Your task to perform on an android device: Search for the best selling books on Target. Image 0: 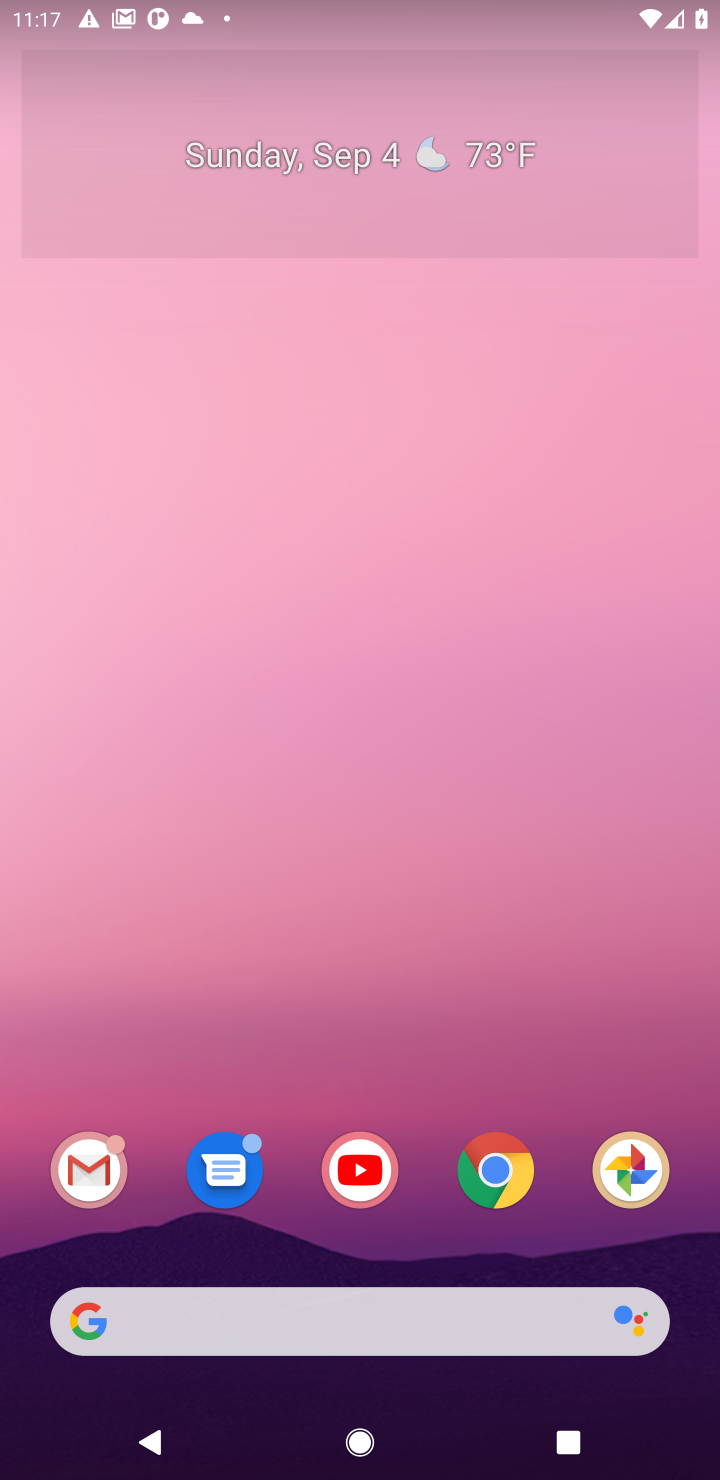
Step 0: click (325, 1346)
Your task to perform on an android device: Search for the best selling books on Target. Image 1: 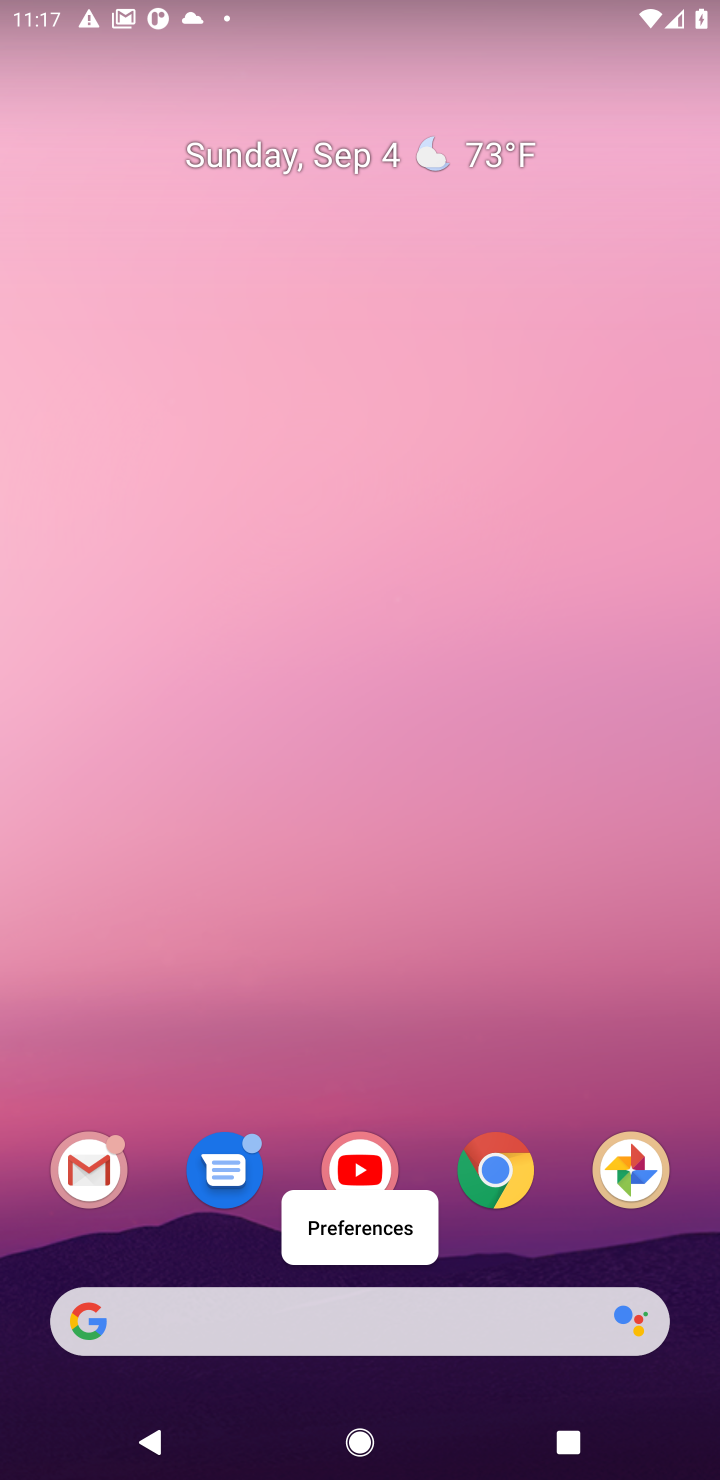
Step 1: click (321, 1340)
Your task to perform on an android device: Search for the best selling books on Target. Image 2: 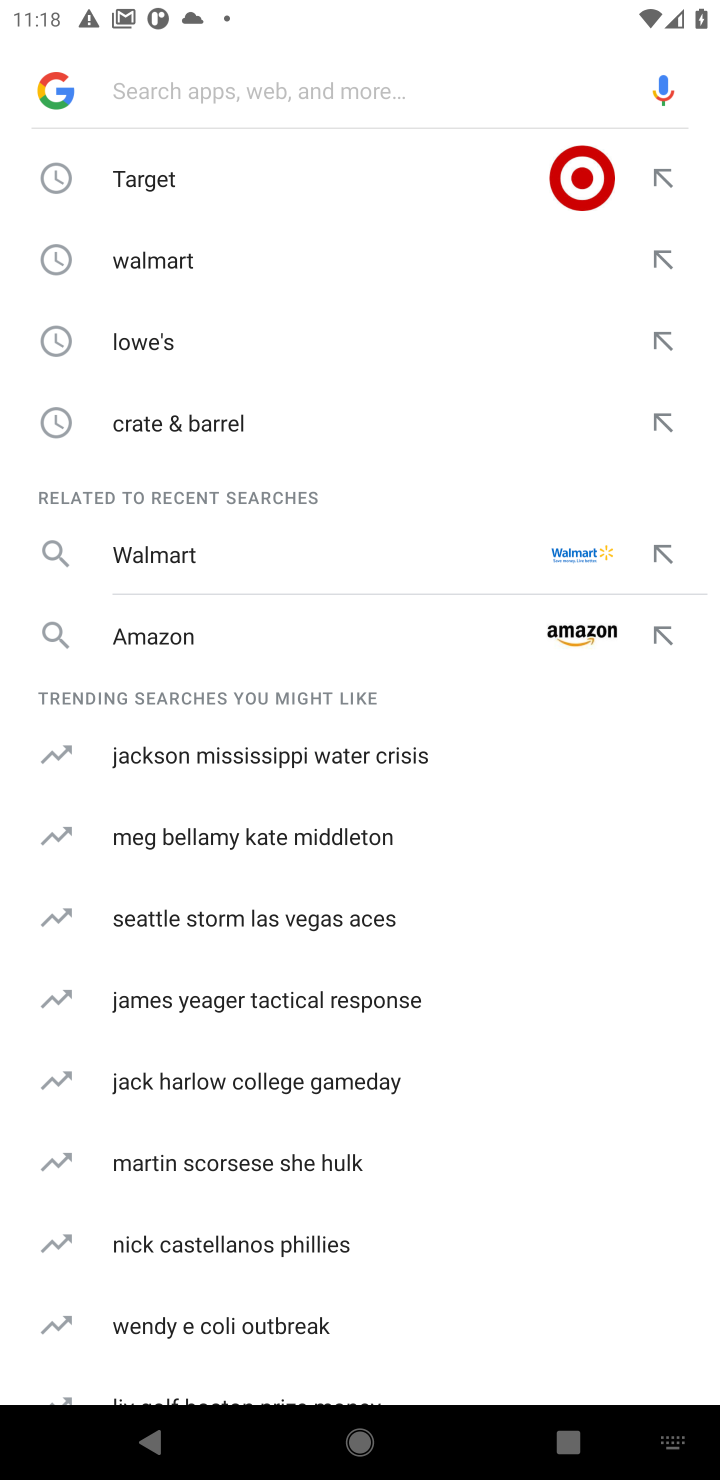
Step 2: click (143, 188)
Your task to perform on an android device: Search for the best selling books on Target. Image 3: 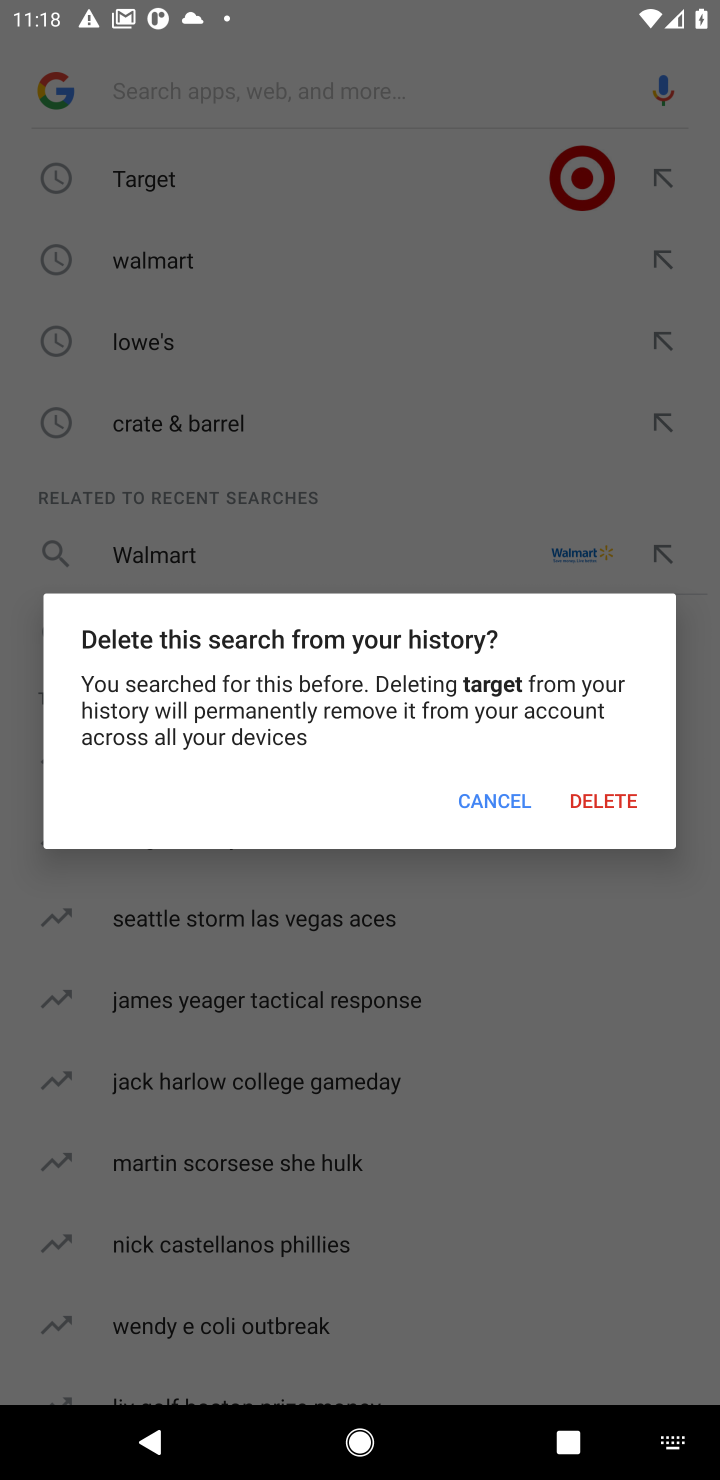
Step 3: click (515, 803)
Your task to perform on an android device: Search for the best selling books on Target. Image 4: 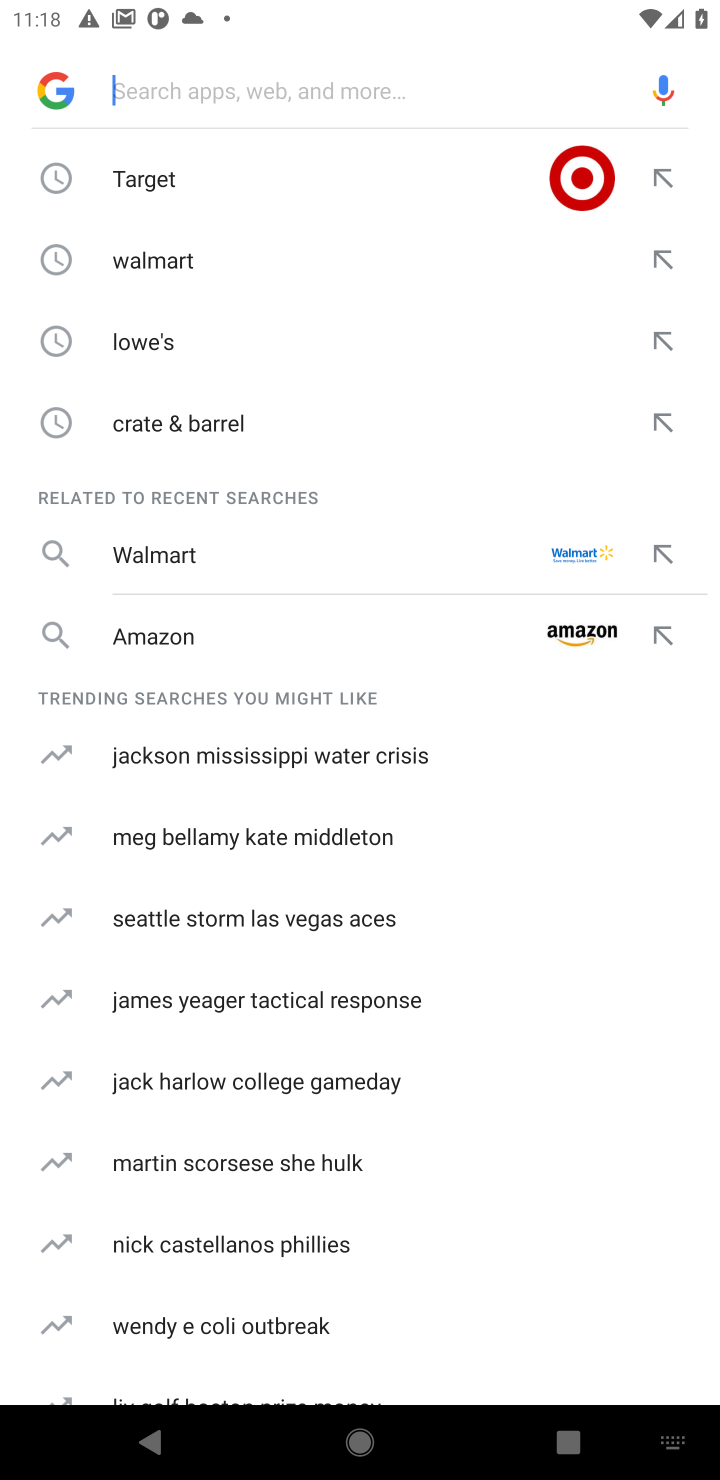
Step 4: click (129, 197)
Your task to perform on an android device: Search for the best selling books on Target. Image 5: 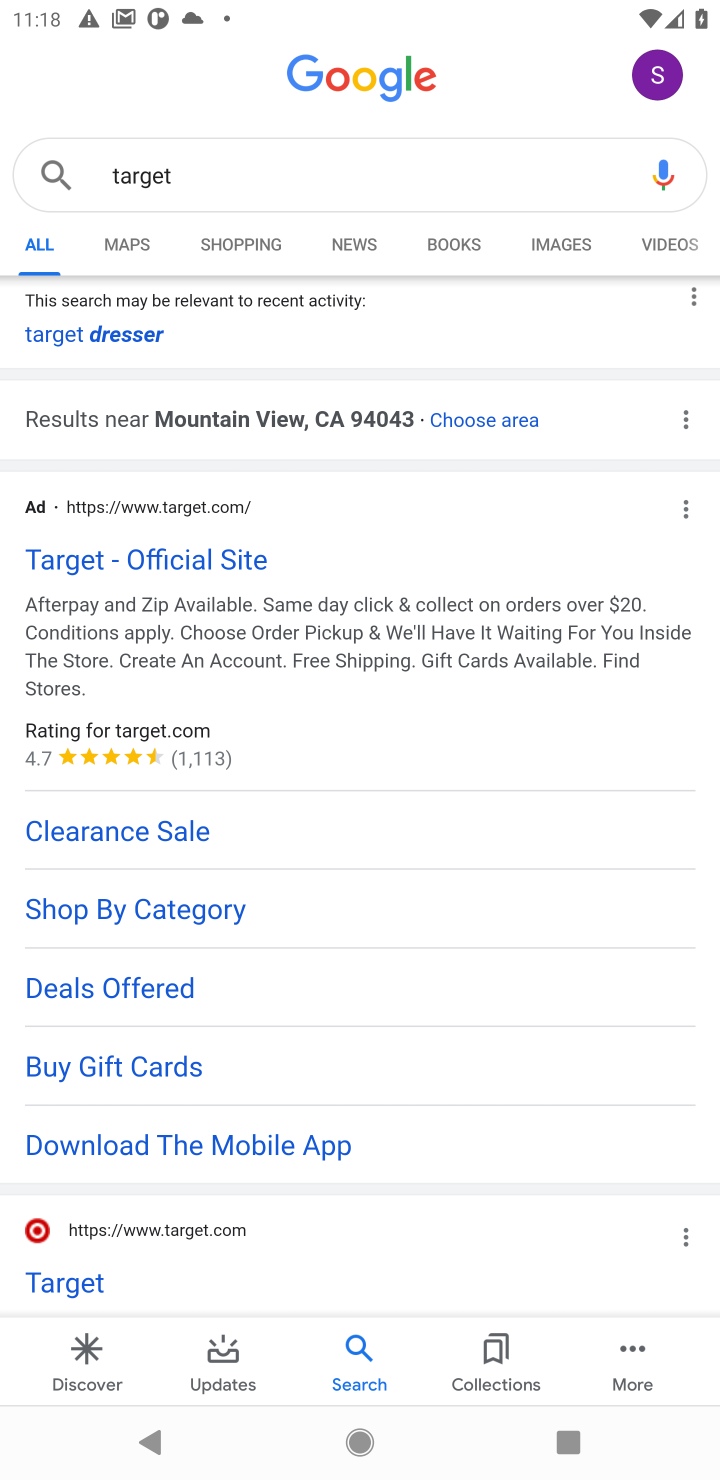
Step 5: click (154, 565)
Your task to perform on an android device: Search for the best selling books on Target. Image 6: 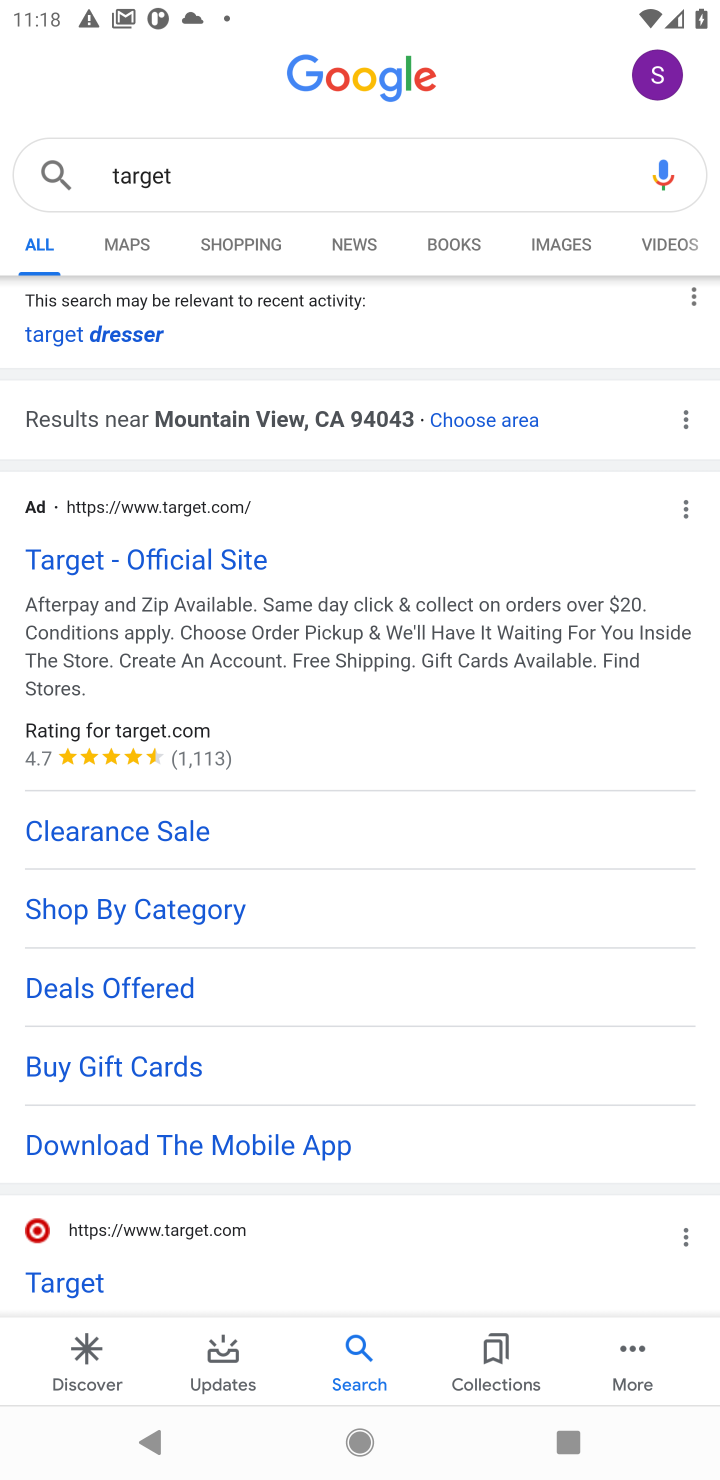
Step 6: click (156, 549)
Your task to perform on an android device: Search for the best selling books on Target. Image 7: 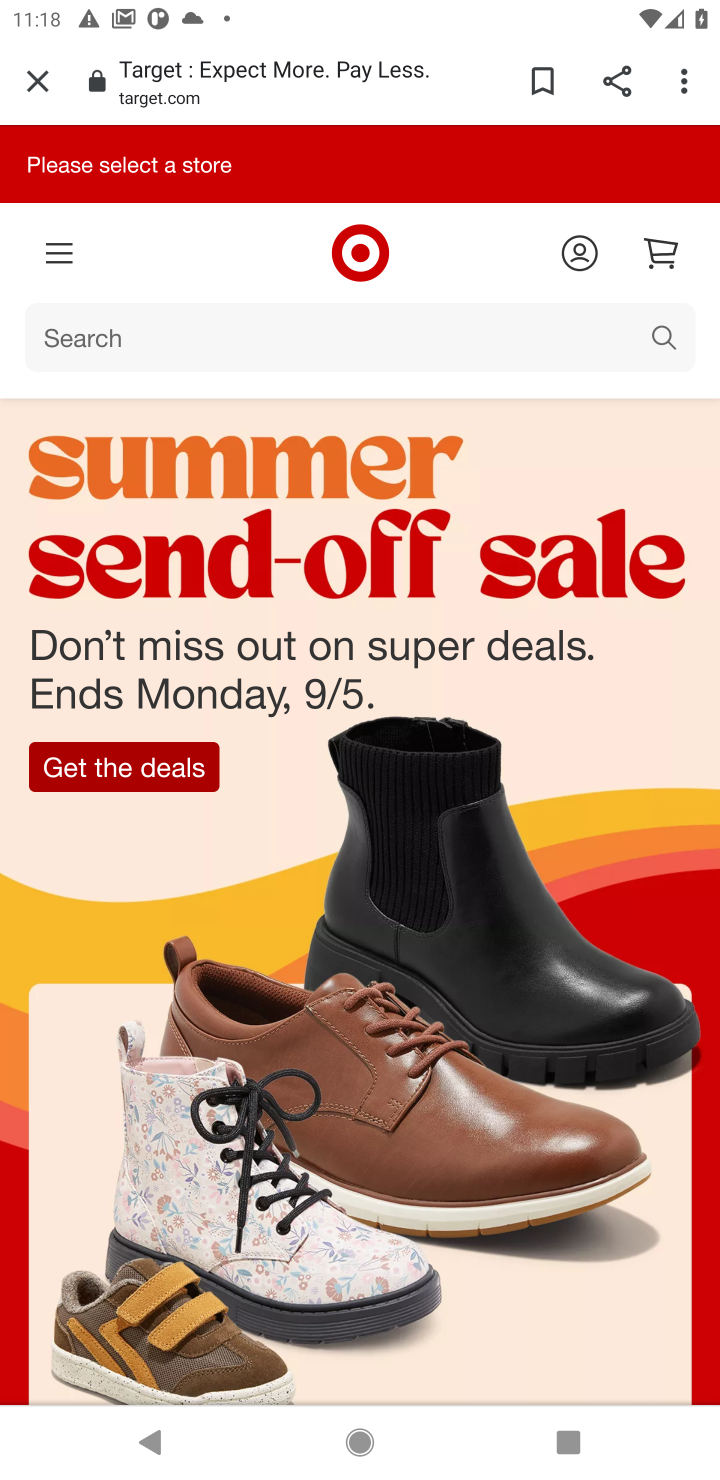
Step 7: click (201, 341)
Your task to perform on an android device: Search for the best selling books on Target. Image 8: 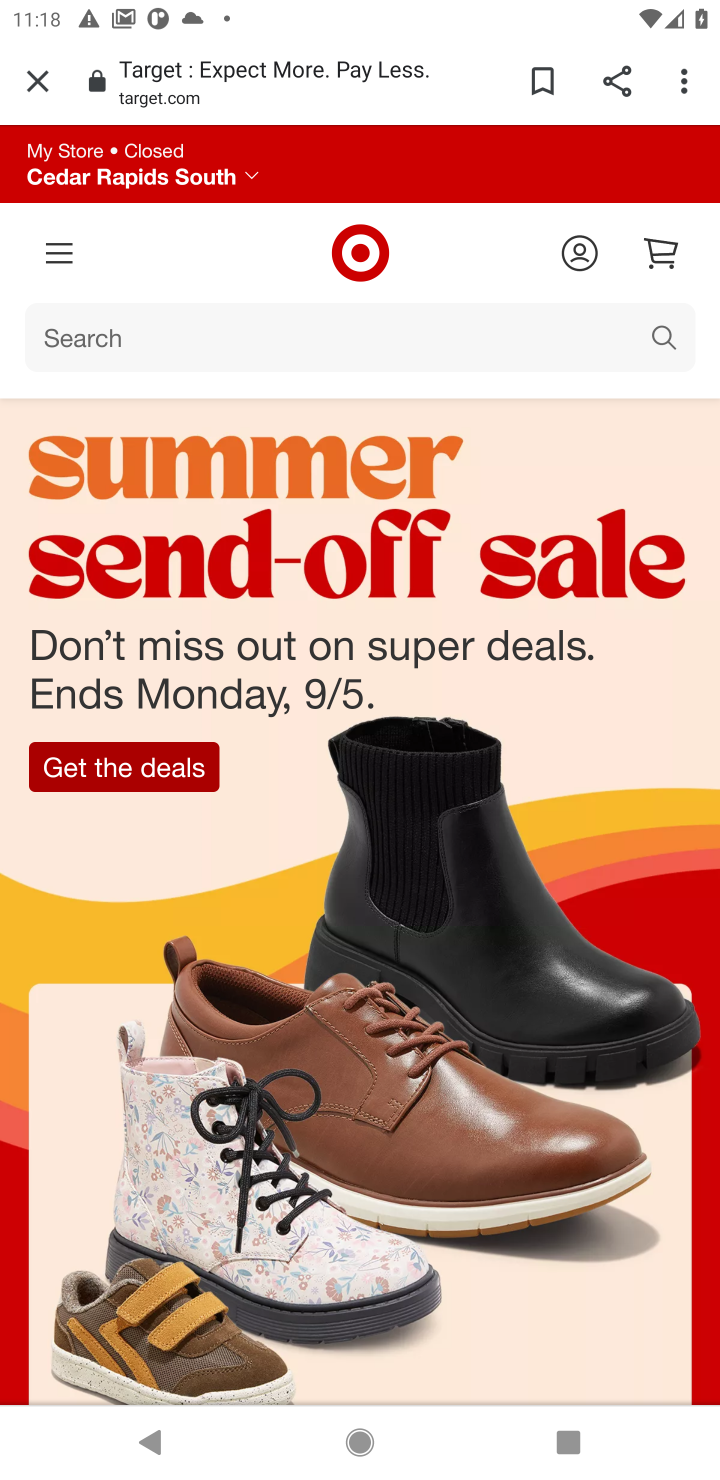
Step 8: click (201, 341)
Your task to perform on an android device: Search for the best selling books on Target. Image 9: 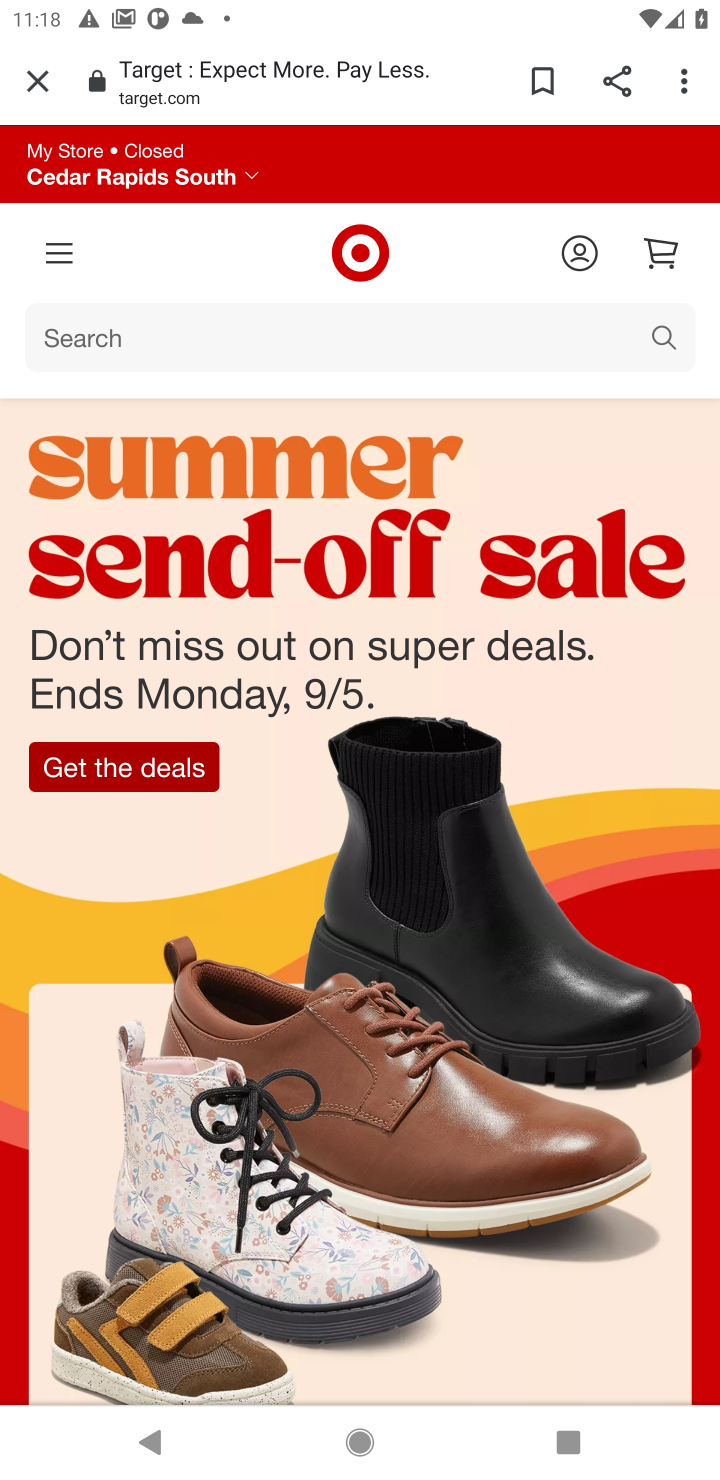
Step 9: click (201, 341)
Your task to perform on an android device: Search for the best selling books on Target. Image 10: 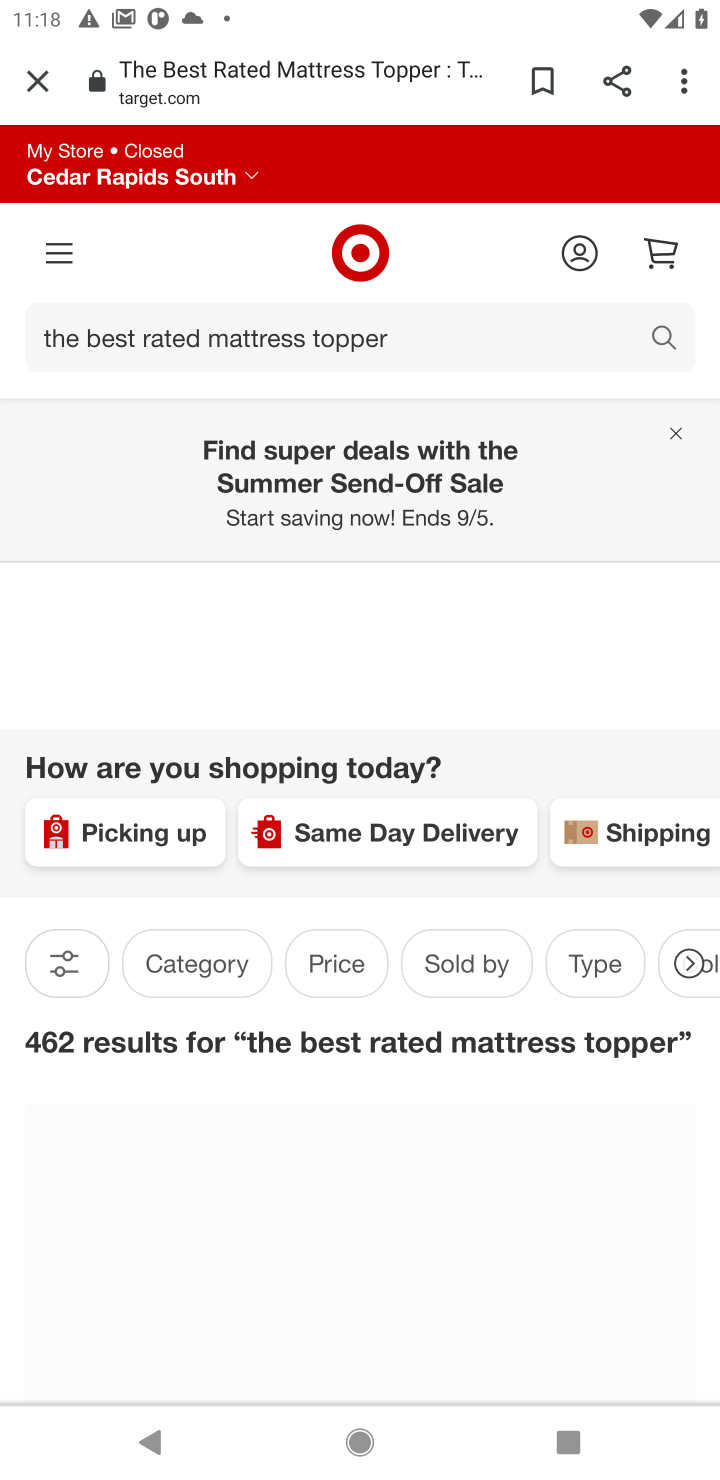
Step 10: click (414, 317)
Your task to perform on an android device: Search for the best selling books on Target. Image 11: 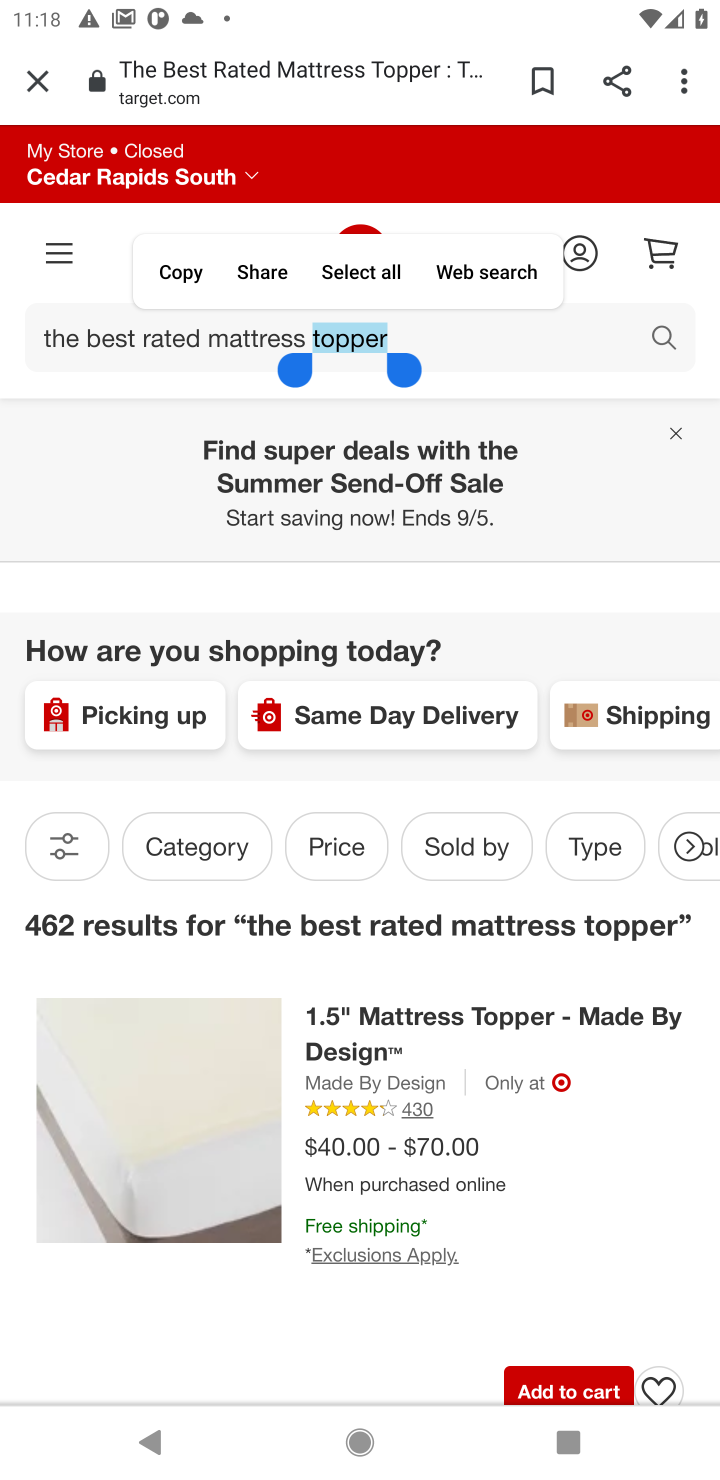
Step 11: click (181, 280)
Your task to perform on an android device: Search for the best selling books on Target. Image 12: 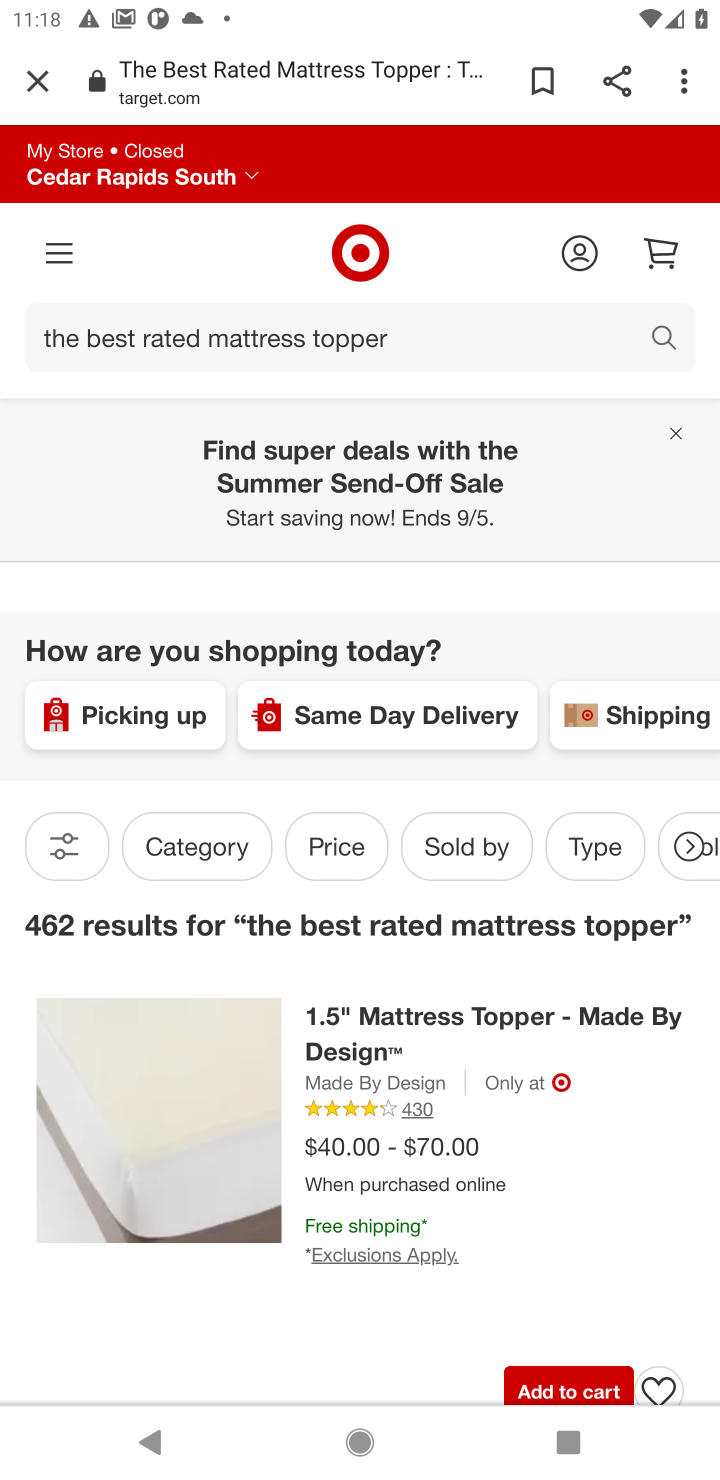
Step 12: click (258, 340)
Your task to perform on an android device: Search for the best selling books on Target. Image 13: 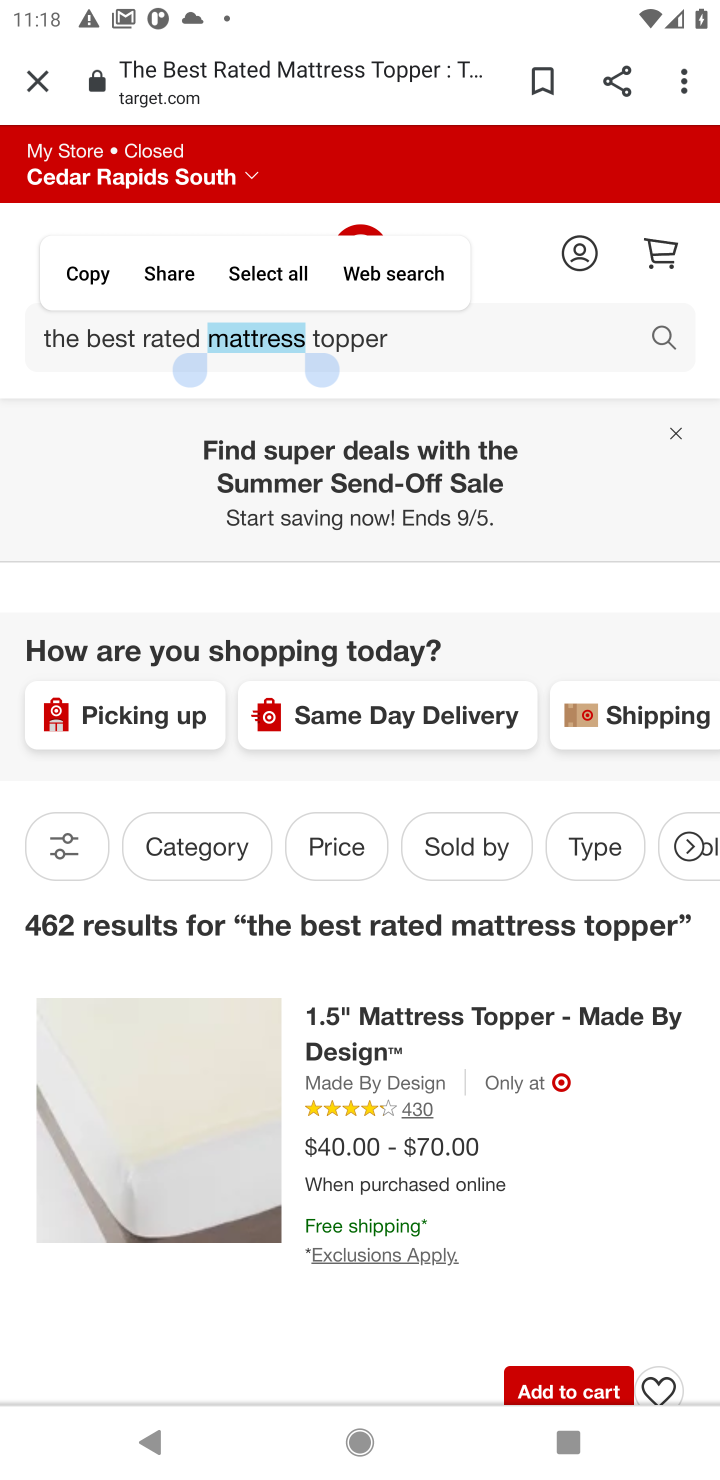
Step 13: click (594, 351)
Your task to perform on an android device: Search for the best selling books on Target. Image 14: 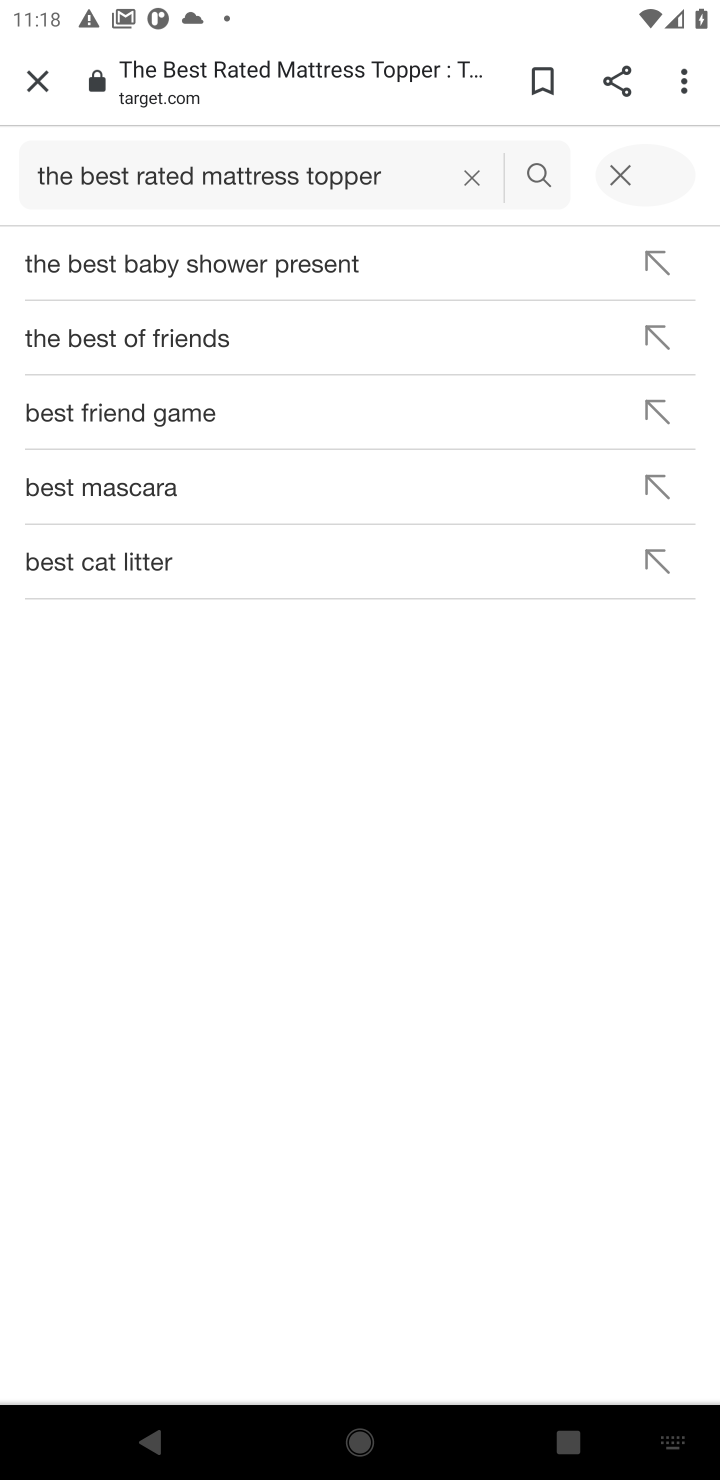
Step 14: click (463, 174)
Your task to perform on an android device: Search for the best selling books on Target. Image 15: 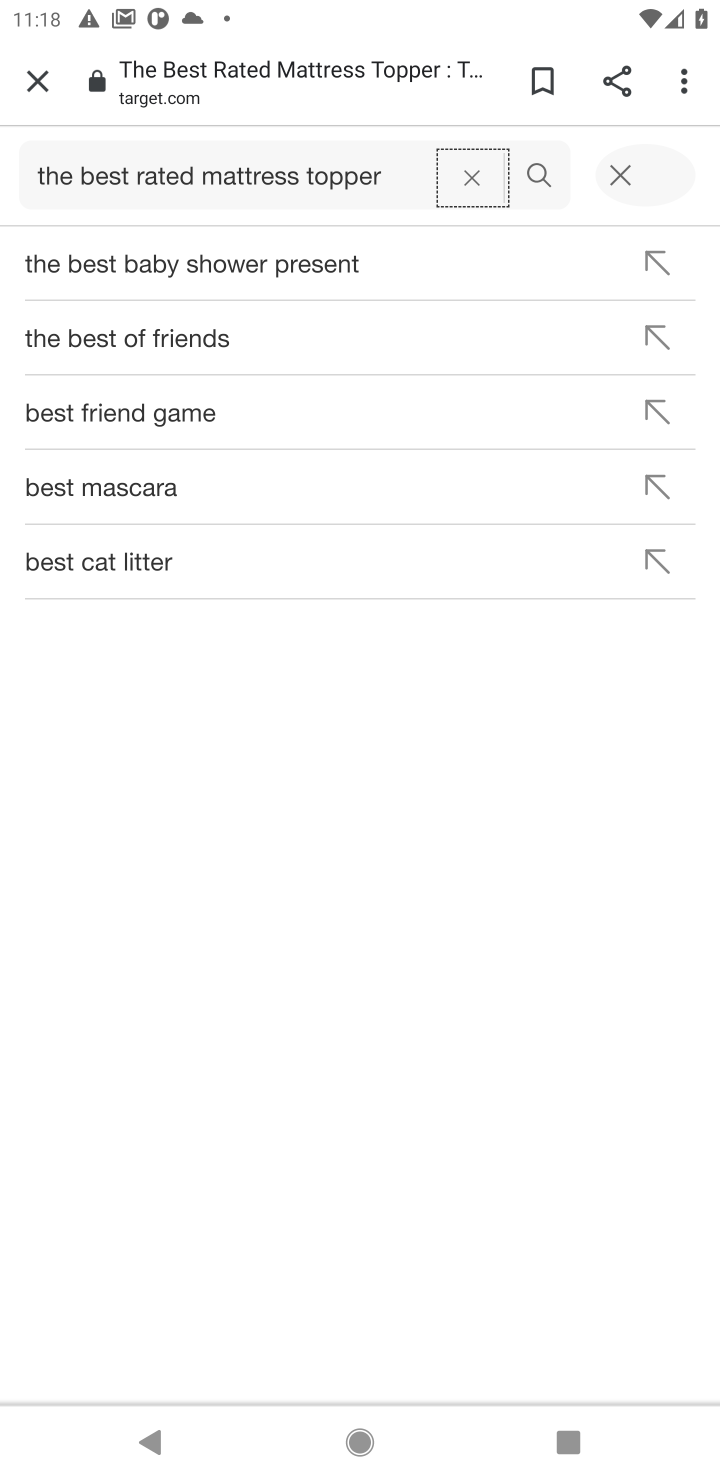
Step 15: click (476, 174)
Your task to perform on an android device: Search for the best selling books on Target. Image 16: 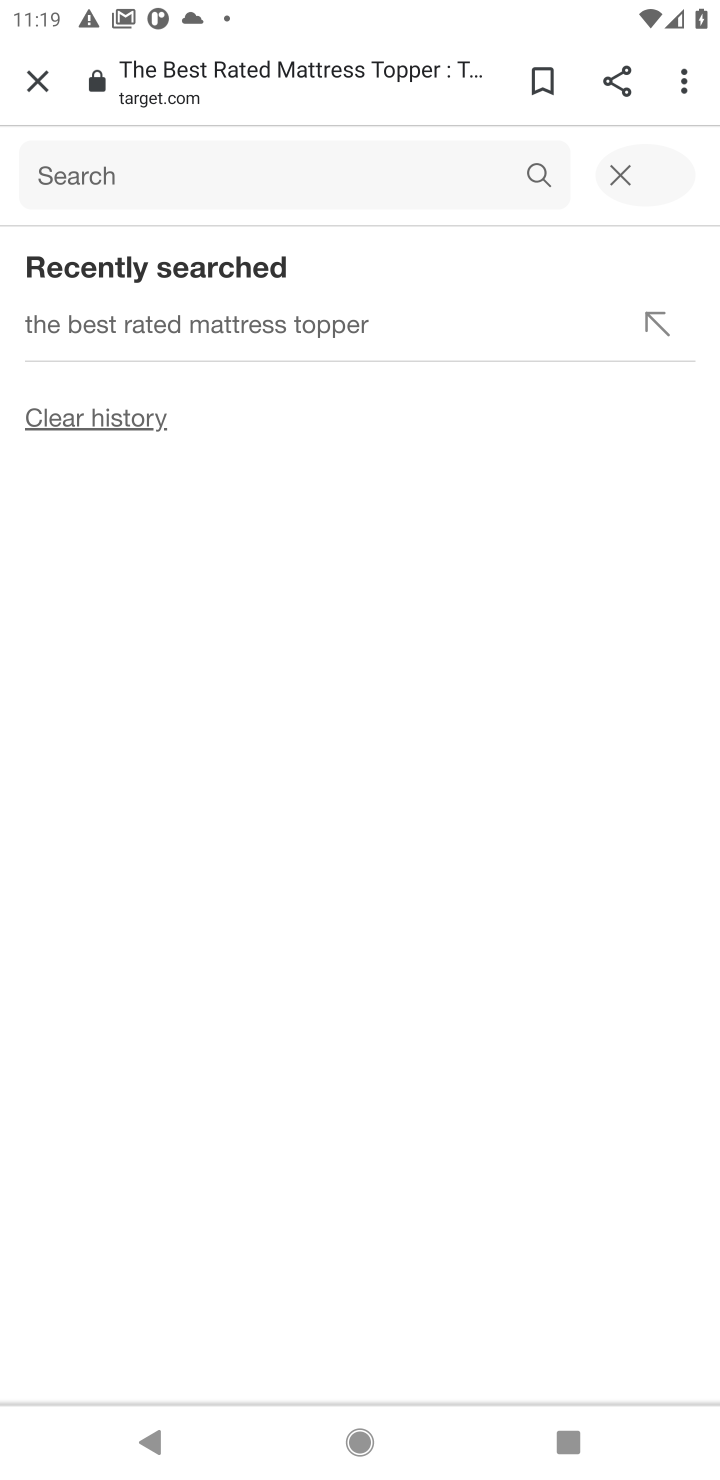
Step 16: type "the best selling books"
Your task to perform on an android device: Search for the best selling books on Target. Image 17: 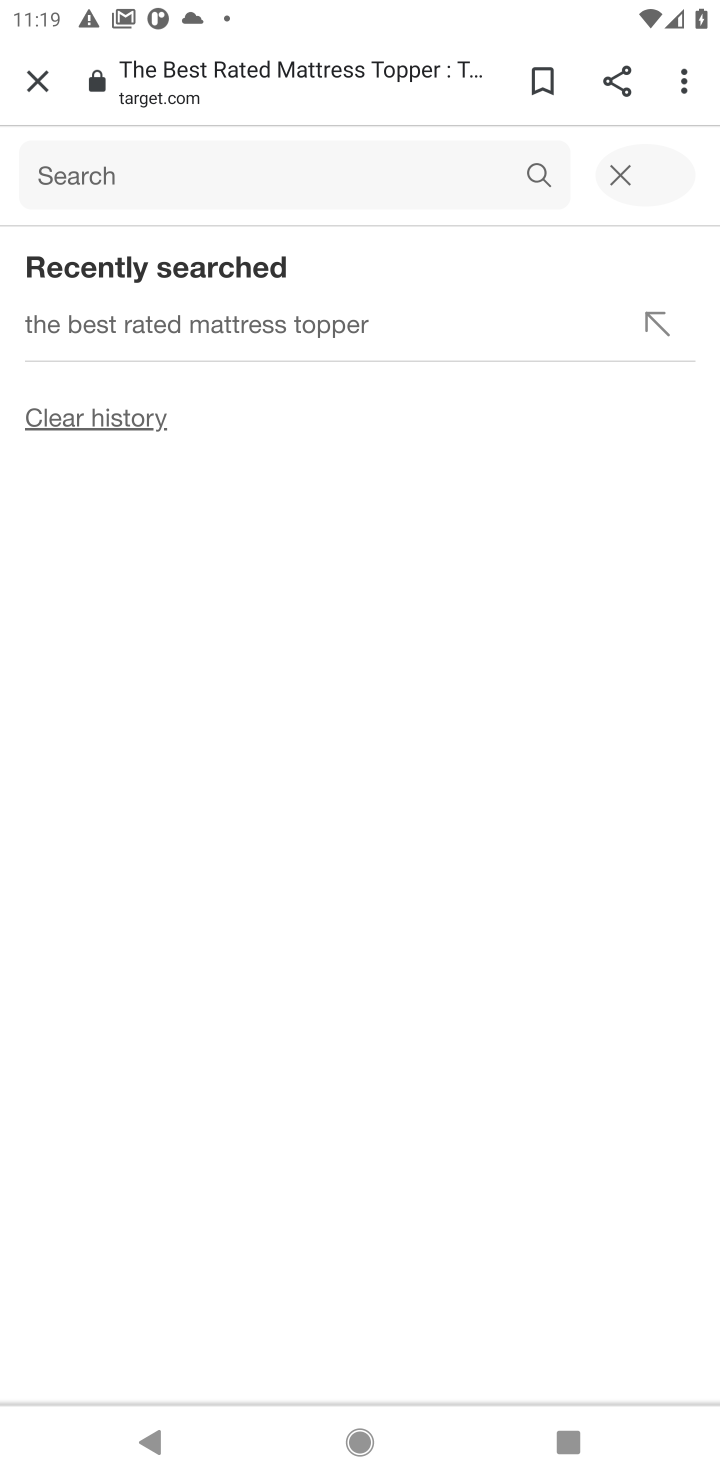
Step 17: click (159, 179)
Your task to perform on an android device: Search for the best selling books on Target. Image 18: 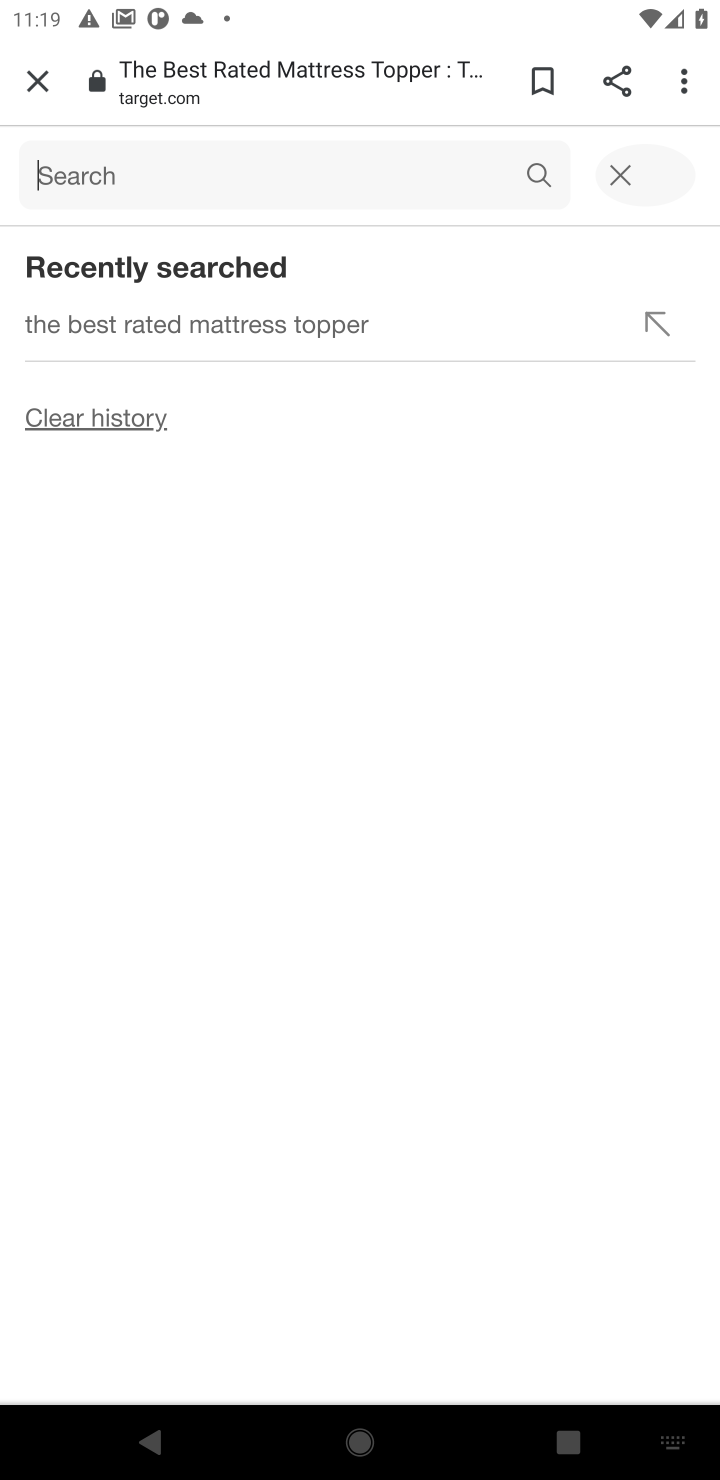
Step 18: type "the best selling books"
Your task to perform on an android device: Search for the best selling books on Target. Image 19: 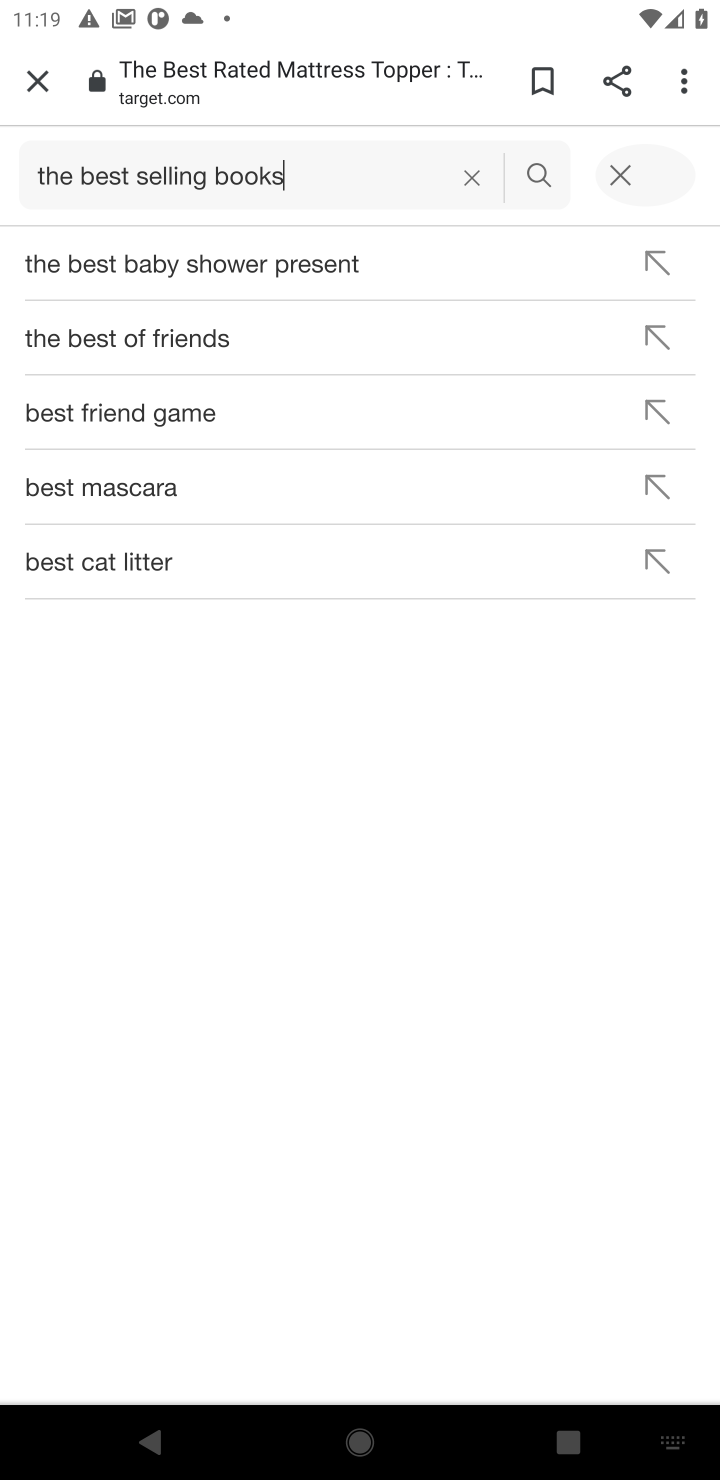
Step 19: click (530, 168)
Your task to perform on an android device: Search for the best selling books on Target. Image 20: 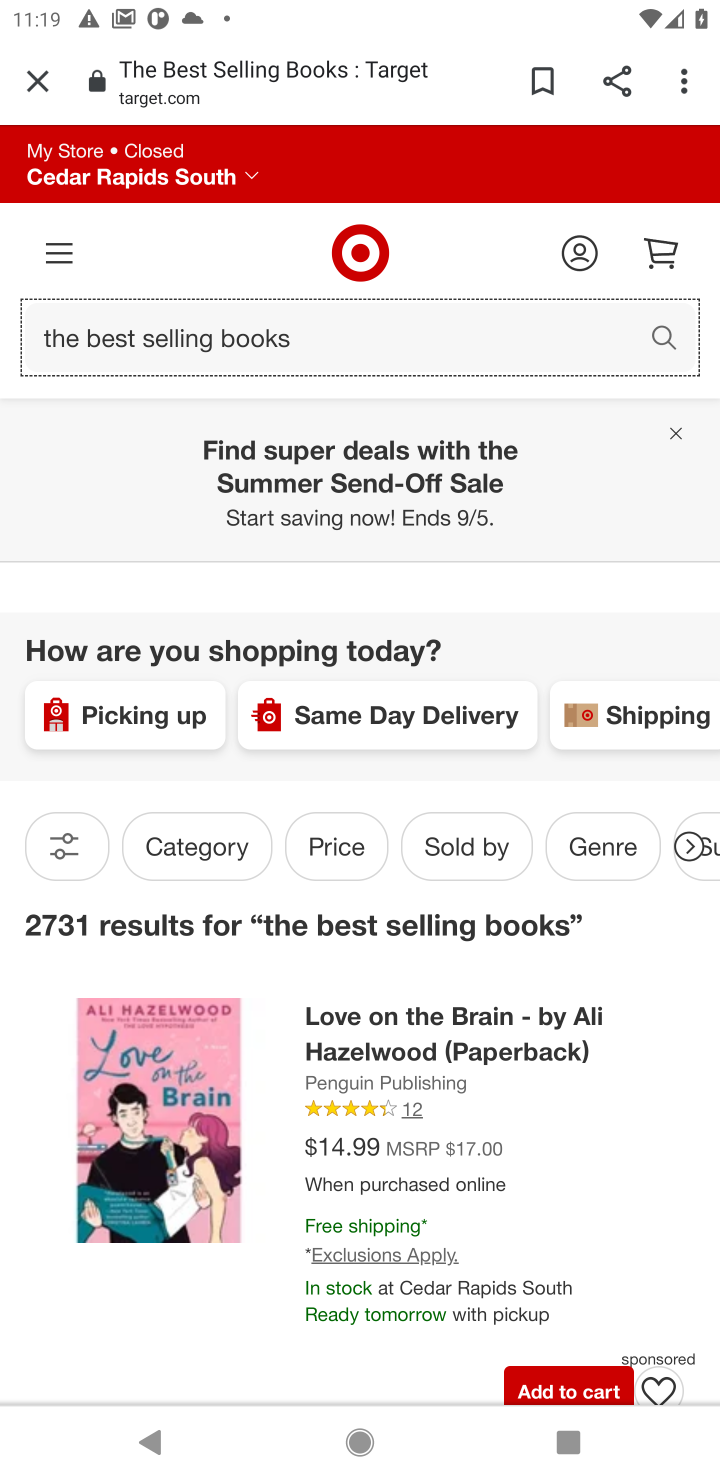
Step 20: task complete